Your task to perform on an android device: Open Google Chrome Image 0: 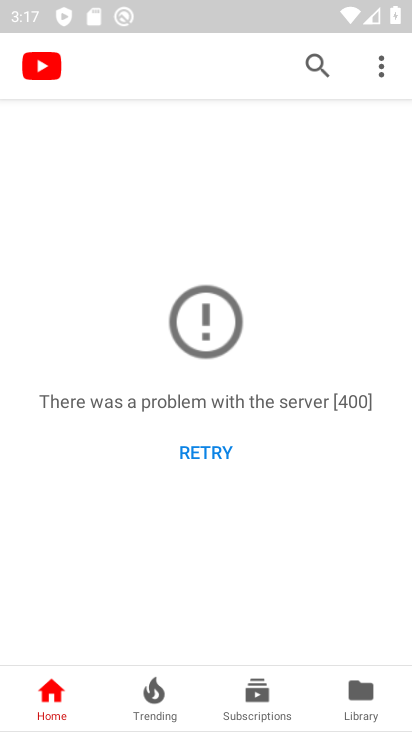
Step 0: press home button
Your task to perform on an android device: Open Google Chrome Image 1: 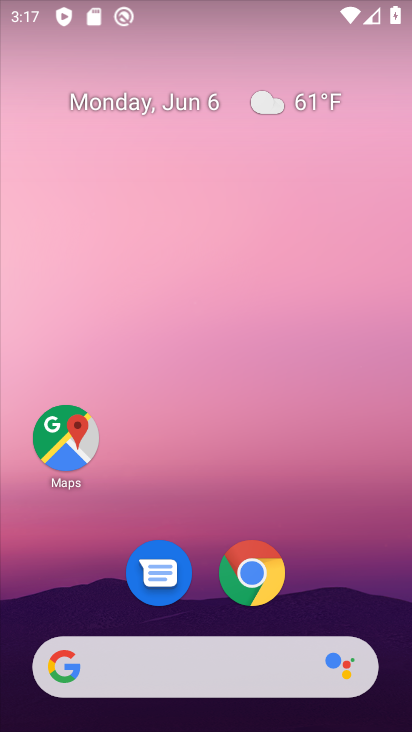
Step 1: click (257, 581)
Your task to perform on an android device: Open Google Chrome Image 2: 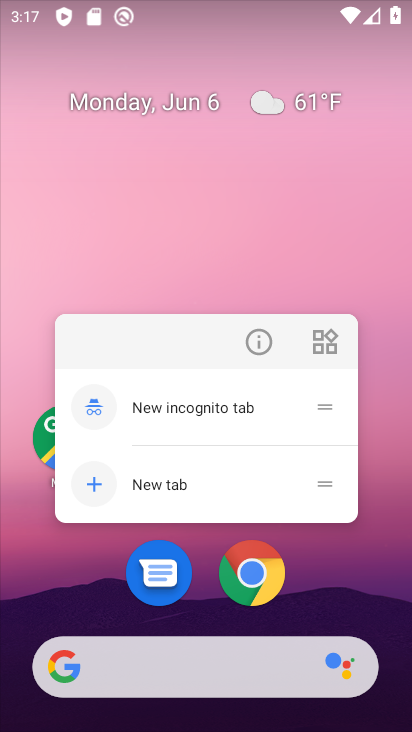
Step 2: click (257, 581)
Your task to perform on an android device: Open Google Chrome Image 3: 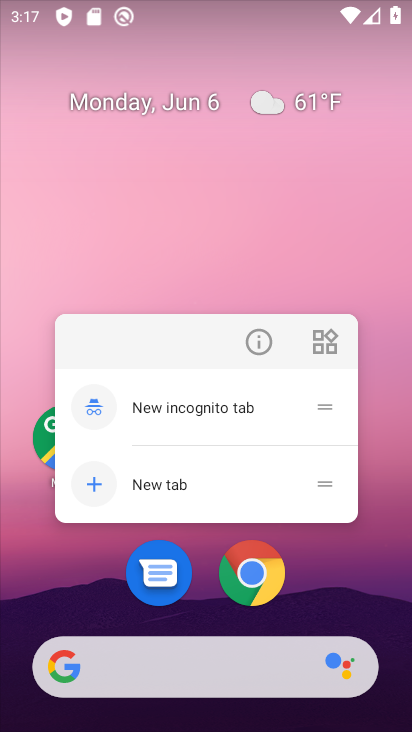
Step 3: click (255, 578)
Your task to perform on an android device: Open Google Chrome Image 4: 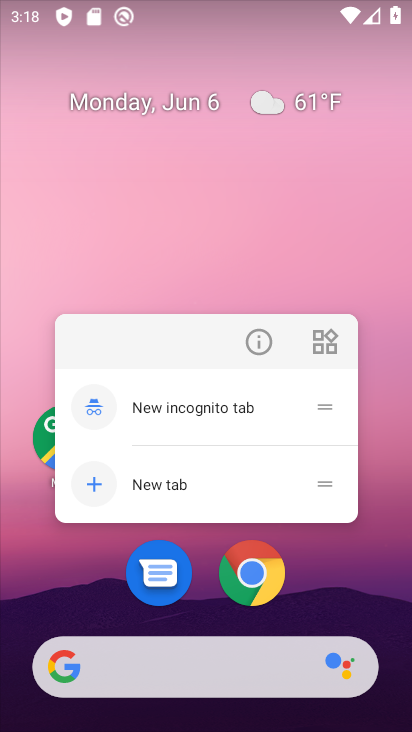
Step 4: click (240, 574)
Your task to perform on an android device: Open Google Chrome Image 5: 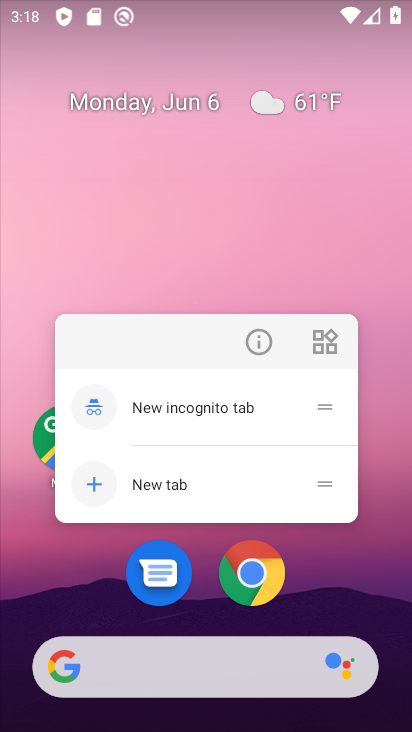
Step 5: click (244, 580)
Your task to perform on an android device: Open Google Chrome Image 6: 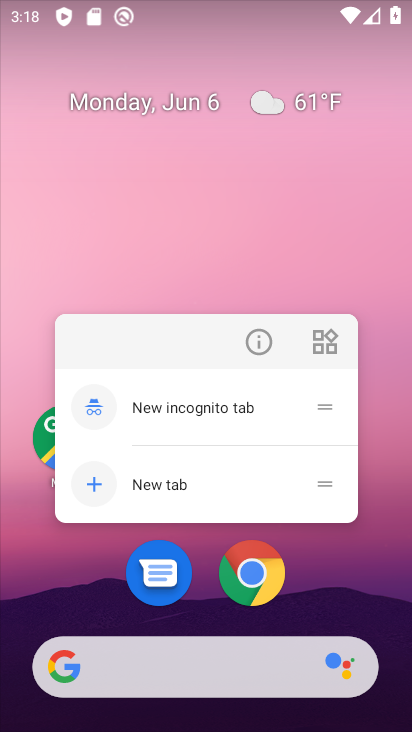
Step 6: click (252, 566)
Your task to perform on an android device: Open Google Chrome Image 7: 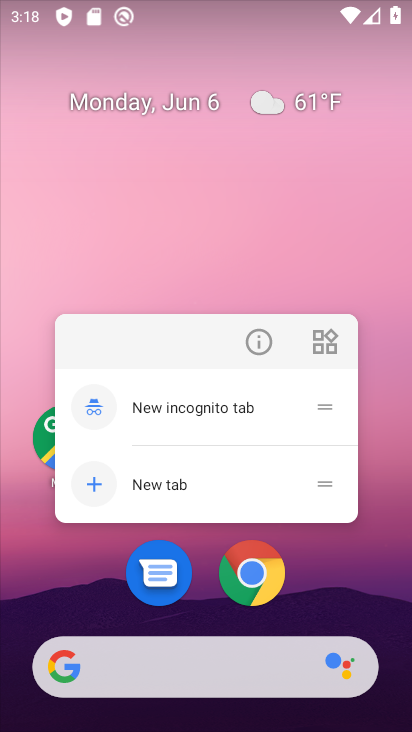
Step 7: click (261, 587)
Your task to perform on an android device: Open Google Chrome Image 8: 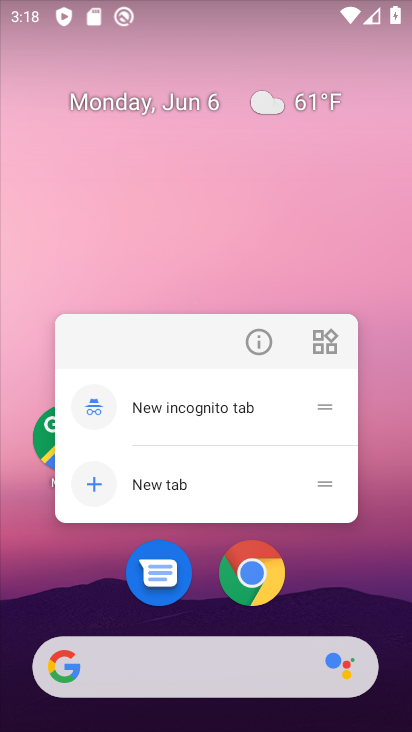
Step 8: click (252, 561)
Your task to perform on an android device: Open Google Chrome Image 9: 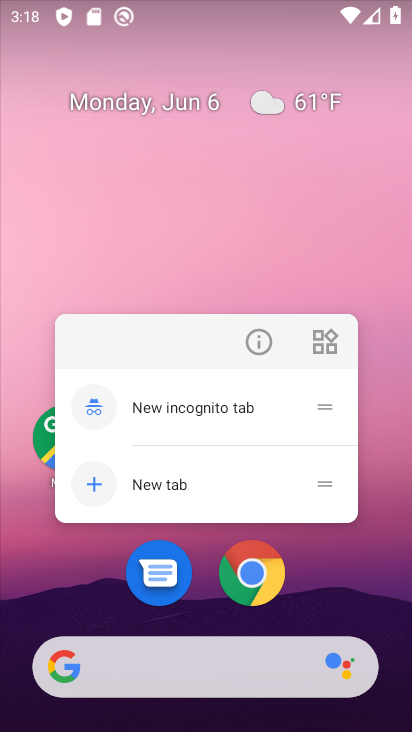
Step 9: click (252, 567)
Your task to perform on an android device: Open Google Chrome Image 10: 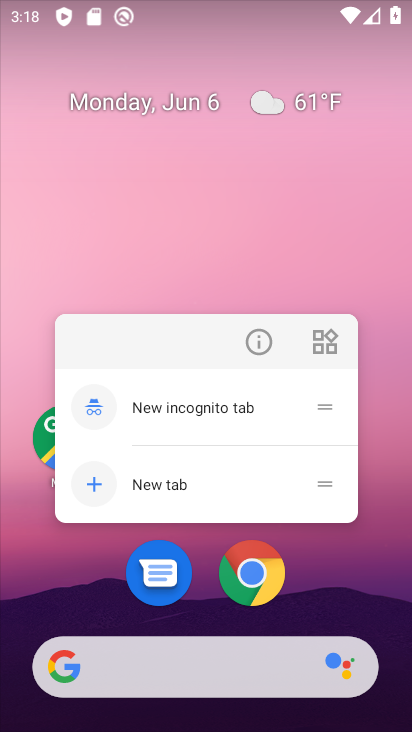
Step 10: click (256, 583)
Your task to perform on an android device: Open Google Chrome Image 11: 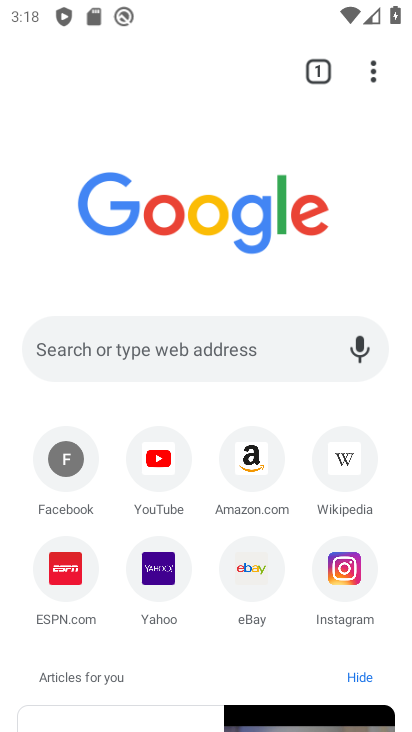
Step 11: task complete